Your task to perform on an android device: change text size in settings app Image 0: 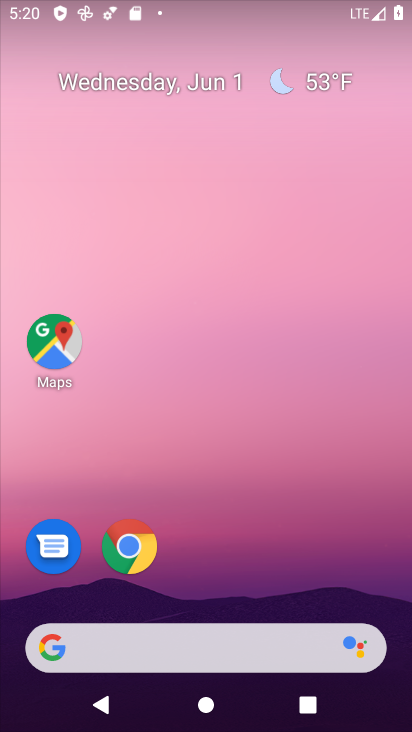
Step 0: drag from (267, 496) to (246, 65)
Your task to perform on an android device: change text size in settings app Image 1: 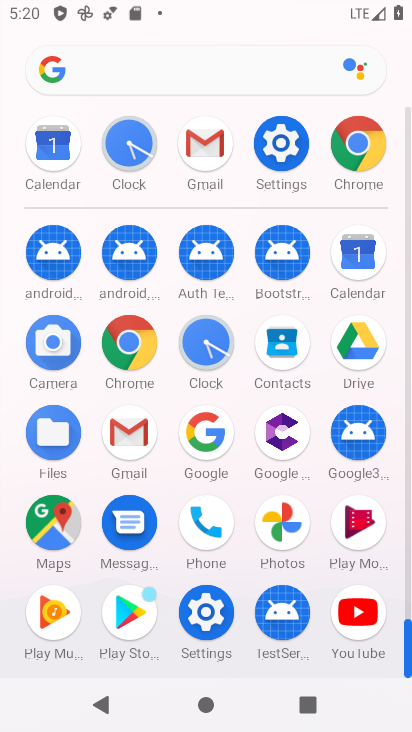
Step 1: drag from (2, 531) to (30, 189)
Your task to perform on an android device: change text size in settings app Image 2: 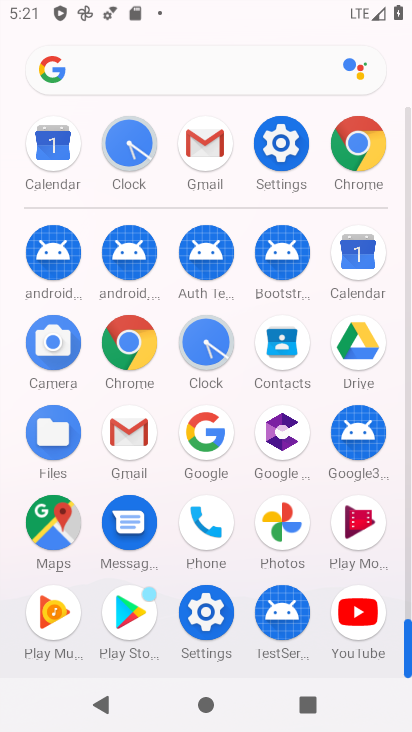
Step 2: drag from (16, 533) to (30, 186)
Your task to perform on an android device: change text size in settings app Image 3: 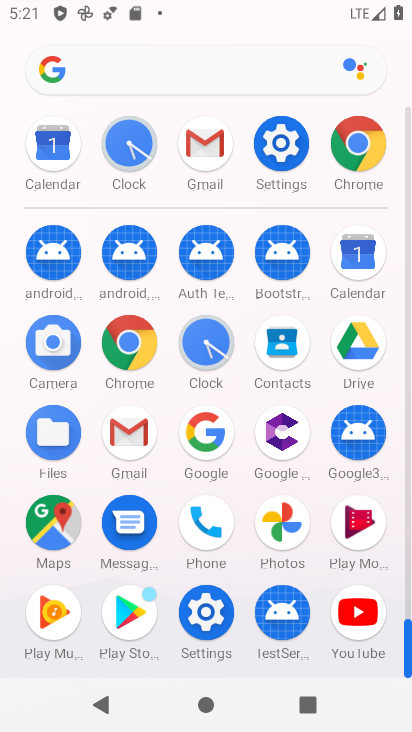
Step 3: click (204, 607)
Your task to perform on an android device: change text size in settings app Image 4: 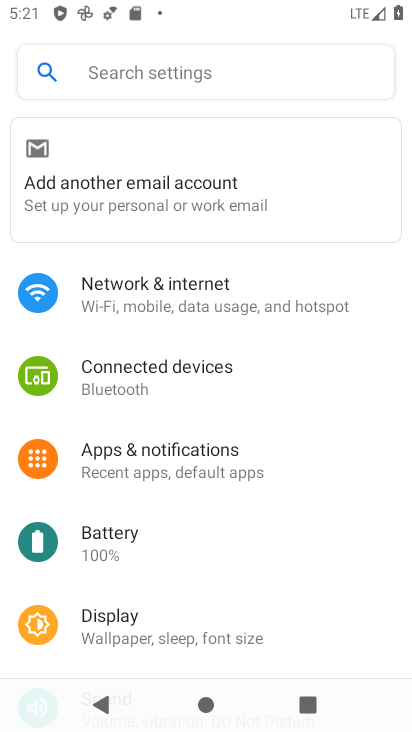
Step 4: click (191, 629)
Your task to perform on an android device: change text size in settings app Image 5: 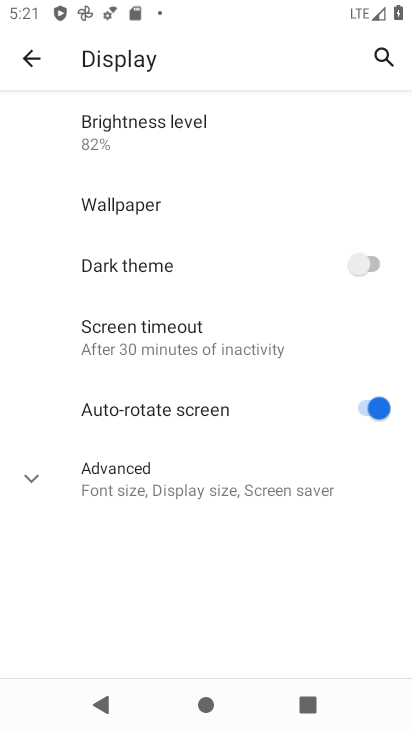
Step 5: click (114, 484)
Your task to perform on an android device: change text size in settings app Image 6: 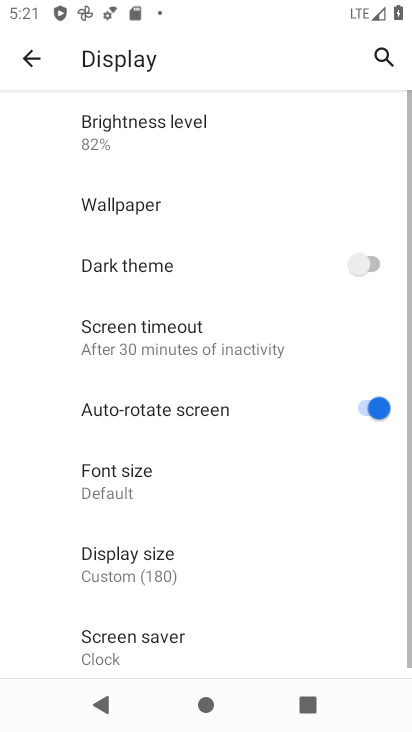
Step 6: drag from (204, 607) to (234, 249)
Your task to perform on an android device: change text size in settings app Image 7: 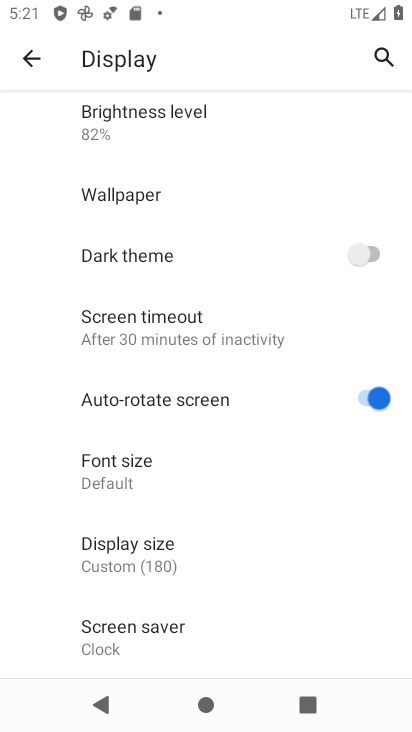
Step 7: click (178, 463)
Your task to perform on an android device: change text size in settings app Image 8: 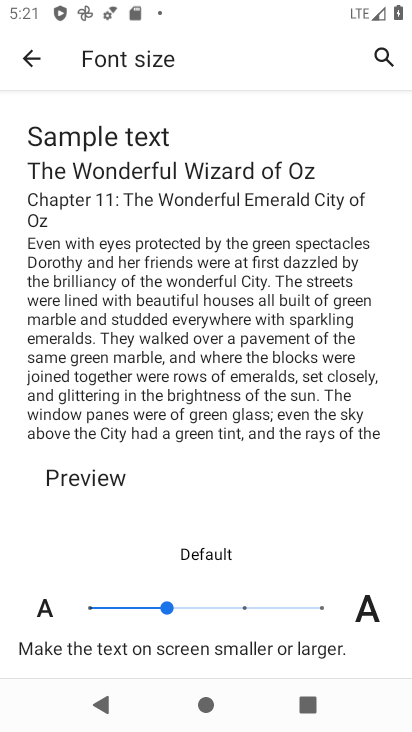
Step 8: click (249, 601)
Your task to perform on an android device: change text size in settings app Image 9: 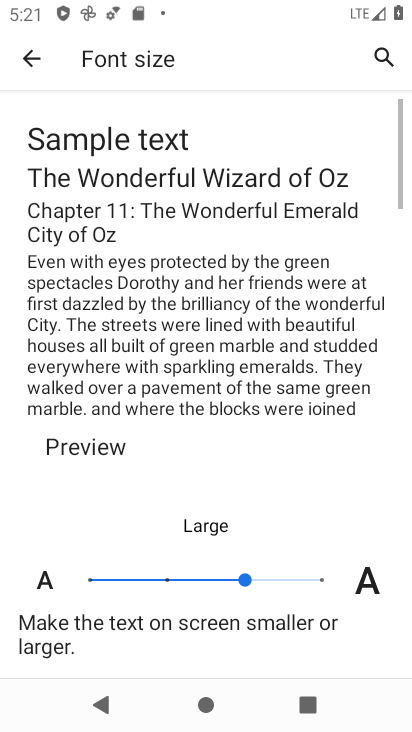
Step 9: task complete